Your task to perform on an android device: Search for sushi restaurants on Maps Image 0: 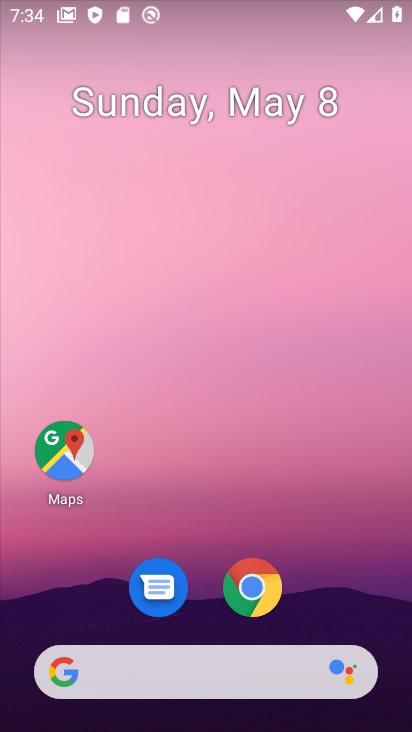
Step 0: click (65, 450)
Your task to perform on an android device: Search for sushi restaurants on Maps Image 1: 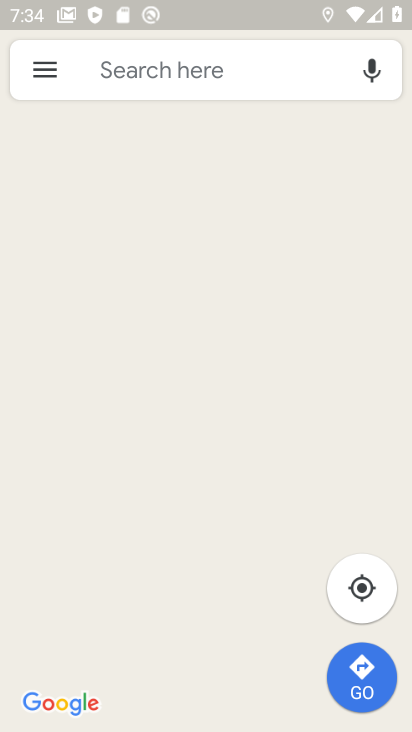
Step 1: click (225, 70)
Your task to perform on an android device: Search for sushi restaurants on Maps Image 2: 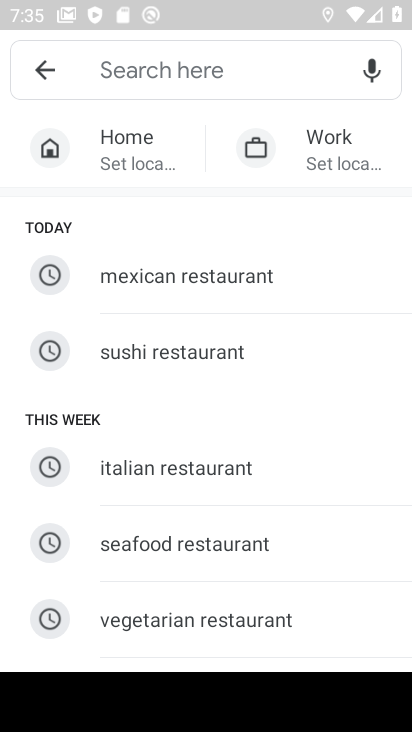
Step 2: type "sushi restaurants"
Your task to perform on an android device: Search for sushi restaurants on Maps Image 3: 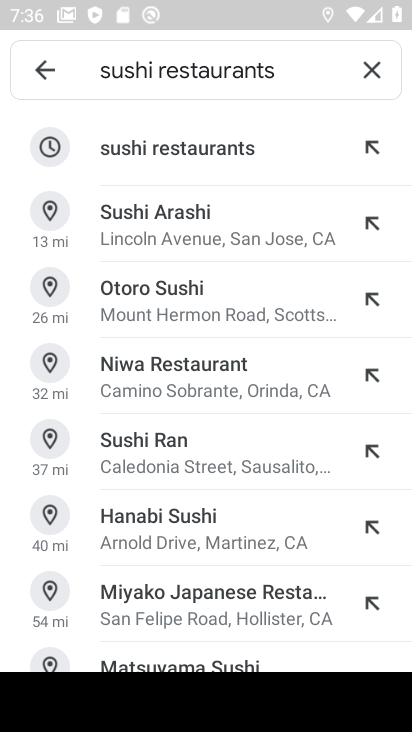
Step 3: click (205, 148)
Your task to perform on an android device: Search for sushi restaurants on Maps Image 4: 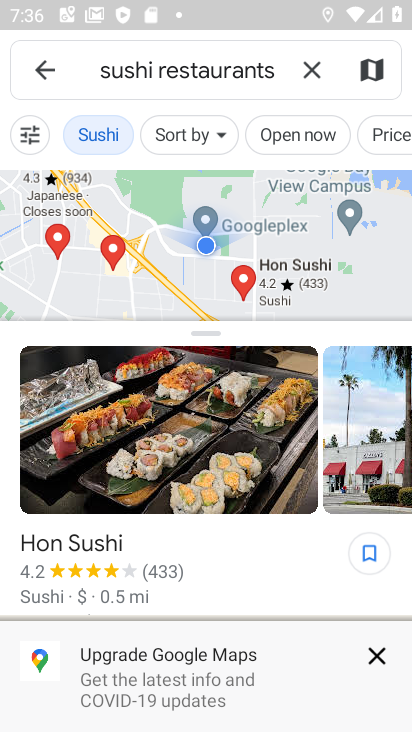
Step 4: task complete